Your task to perform on an android device: see tabs open on other devices in the chrome app Image 0: 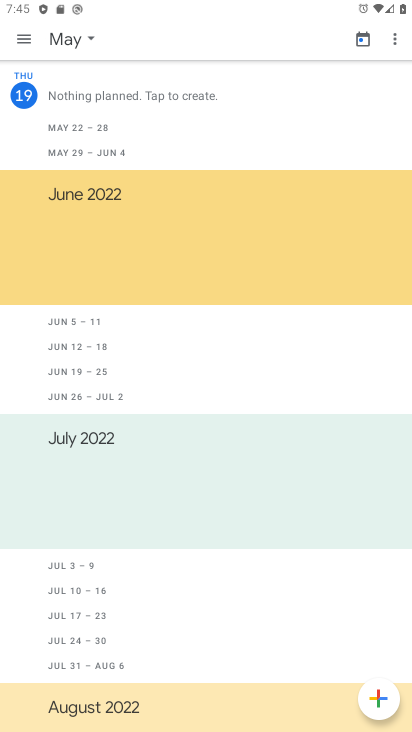
Step 0: press home button
Your task to perform on an android device: see tabs open on other devices in the chrome app Image 1: 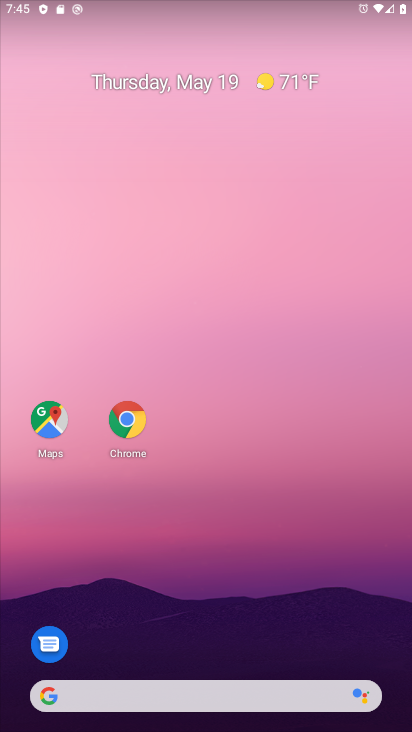
Step 1: click (103, 426)
Your task to perform on an android device: see tabs open on other devices in the chrome app Image 2: 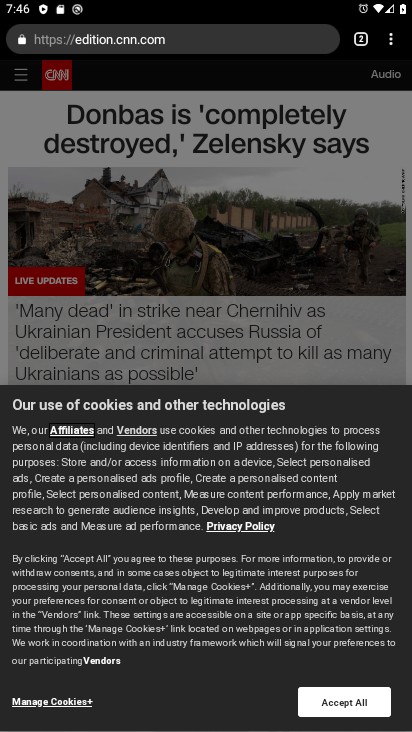
Step 2: click (363, 43)
Your task to perform on an android device: see tabs open on other devices in the chrome app Image 3: 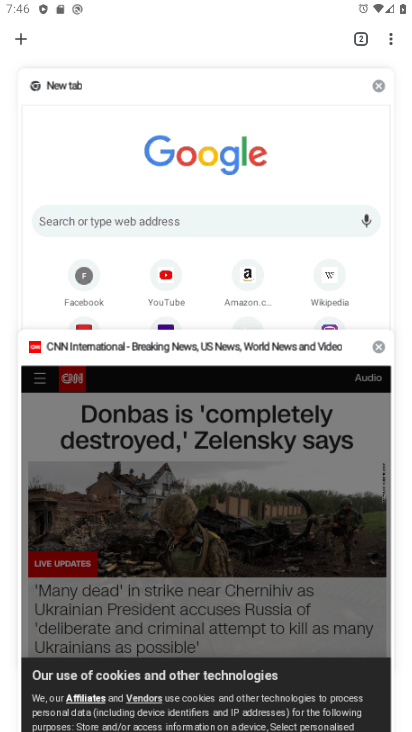
Step 3: task complete